Your task to perform on an android device: Add razer naga to the cart on target.com Image 0: 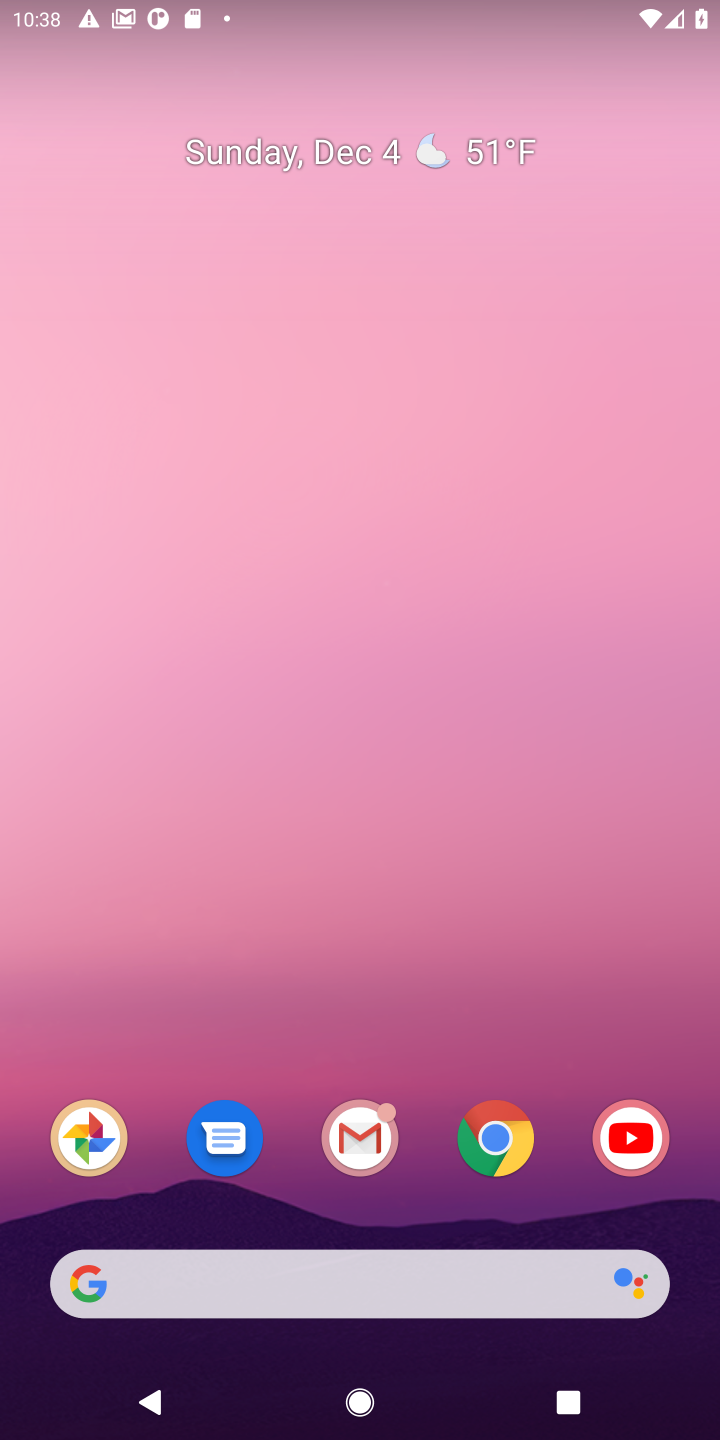
Step 0: click (514, 1122)
Your task to perform on an android device: Add razer naga to the cart on target.com Image 1: 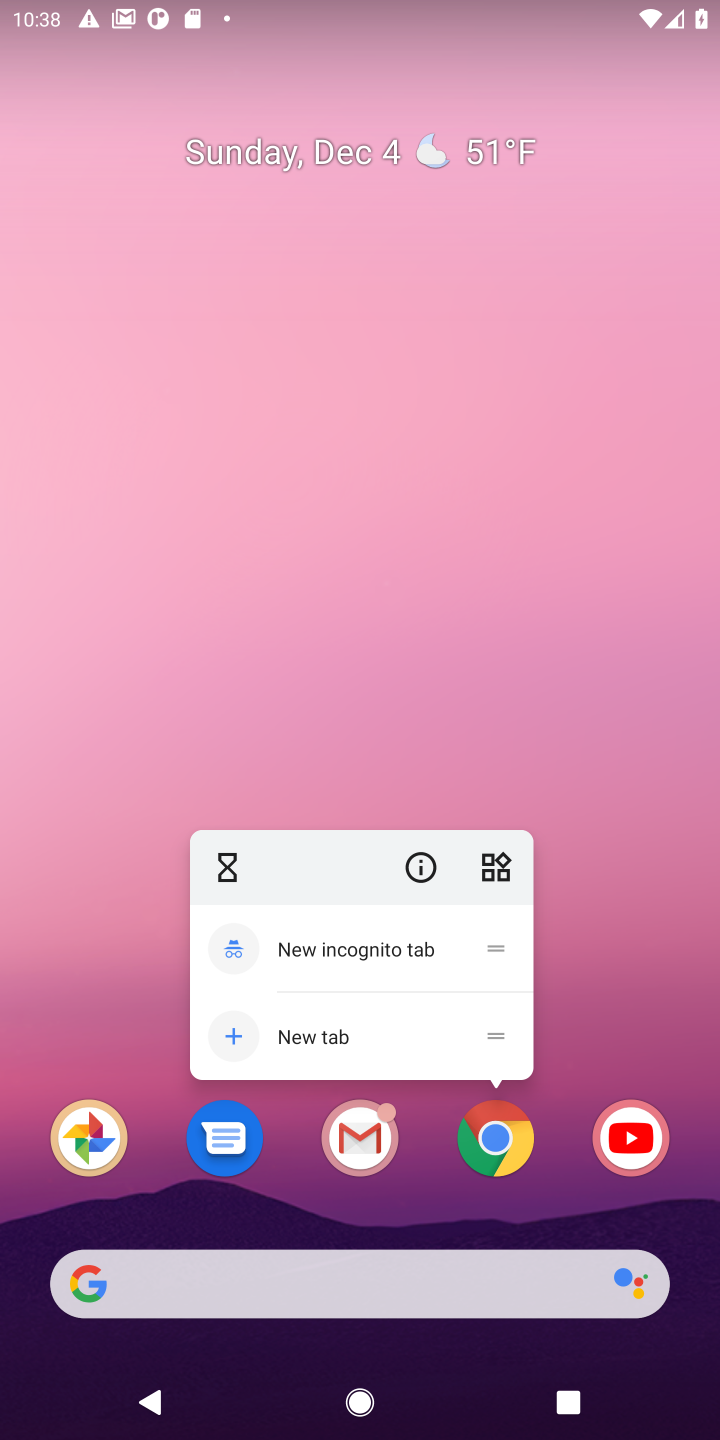
Step 1: click (514, 1122)
Your task to perform on an android device: Add razer naga to the cart on target.com Image 2: 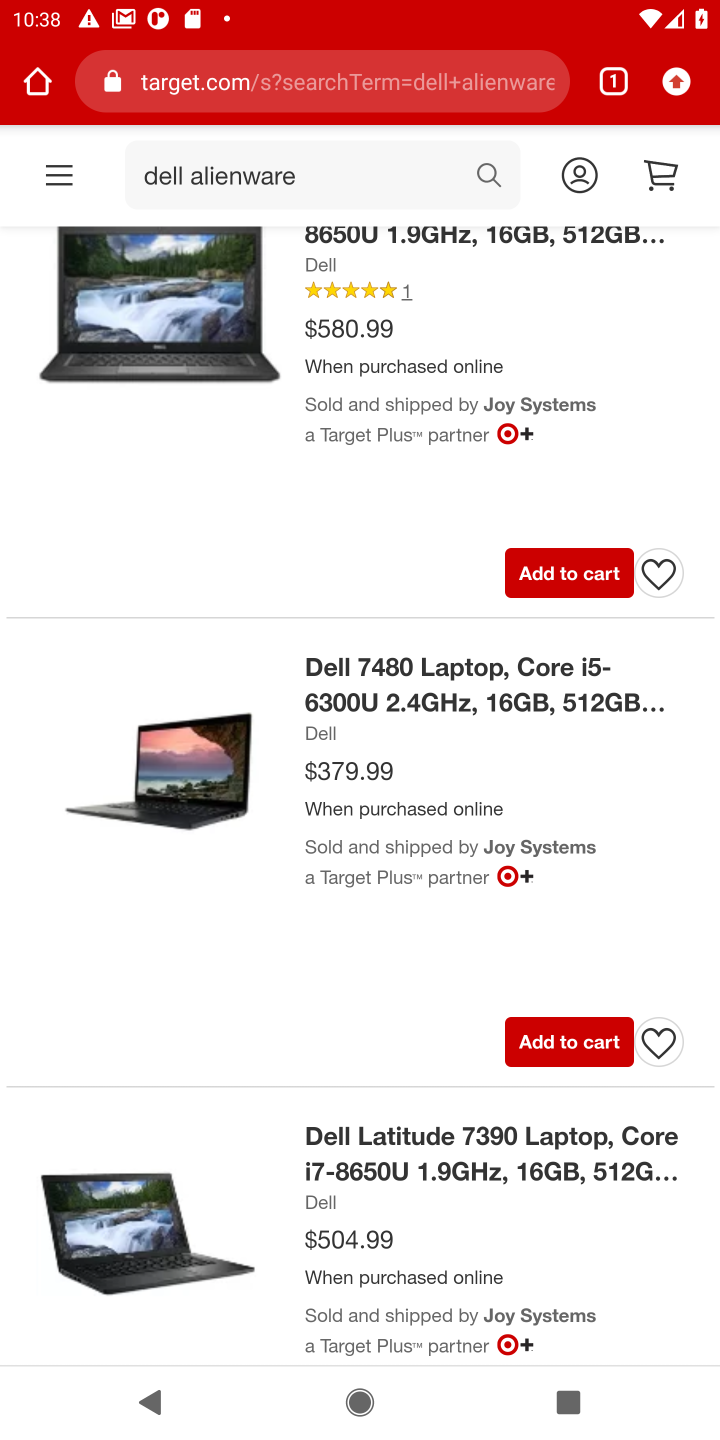
Step 2: click (486, 172)
Your task to perform on an android device: Add razer naga to the cart on target.com Image 3: 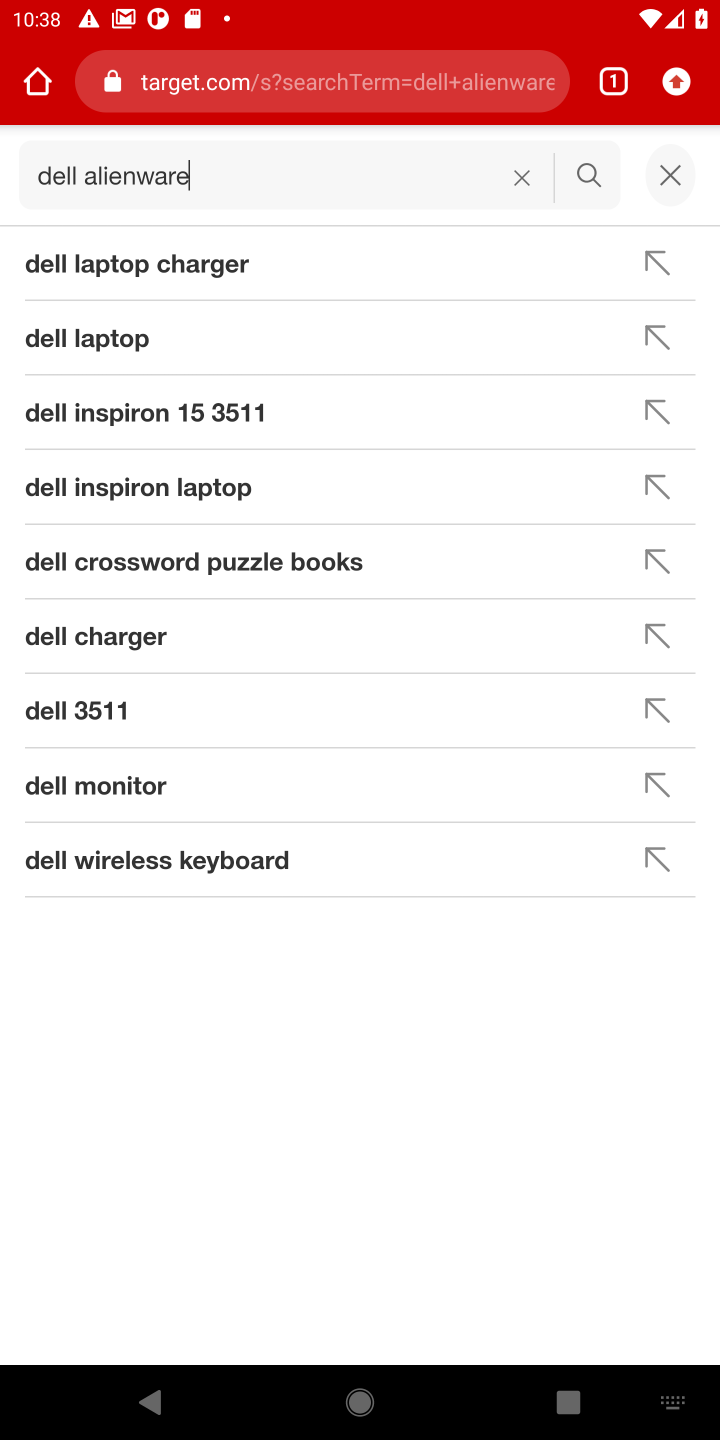
Step 3: click (513, 177)
Your task to perform on an android device: Add razer naga to the cart on target.com Image 4: 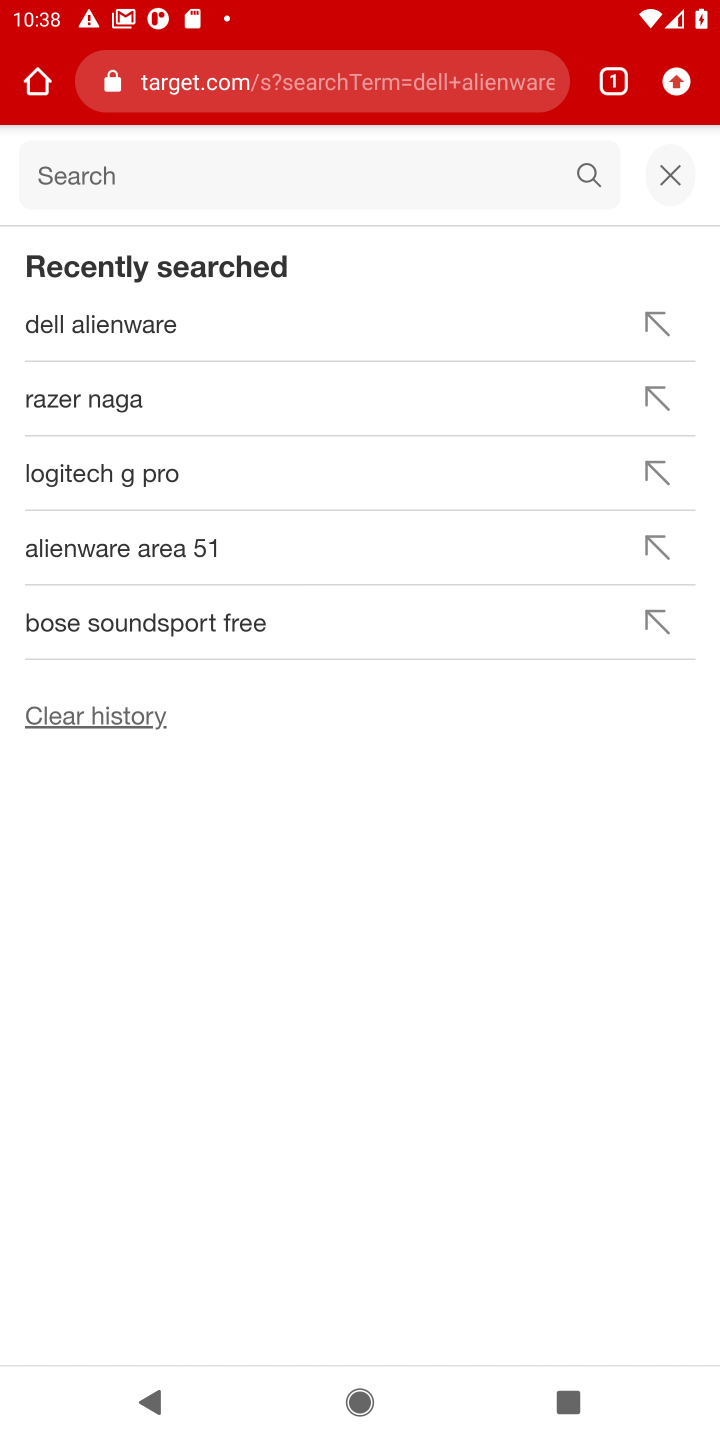
Step 4: type "razer naga"
Your task to perform on an android device: Add razer naga to the cart on target.com Image 5: 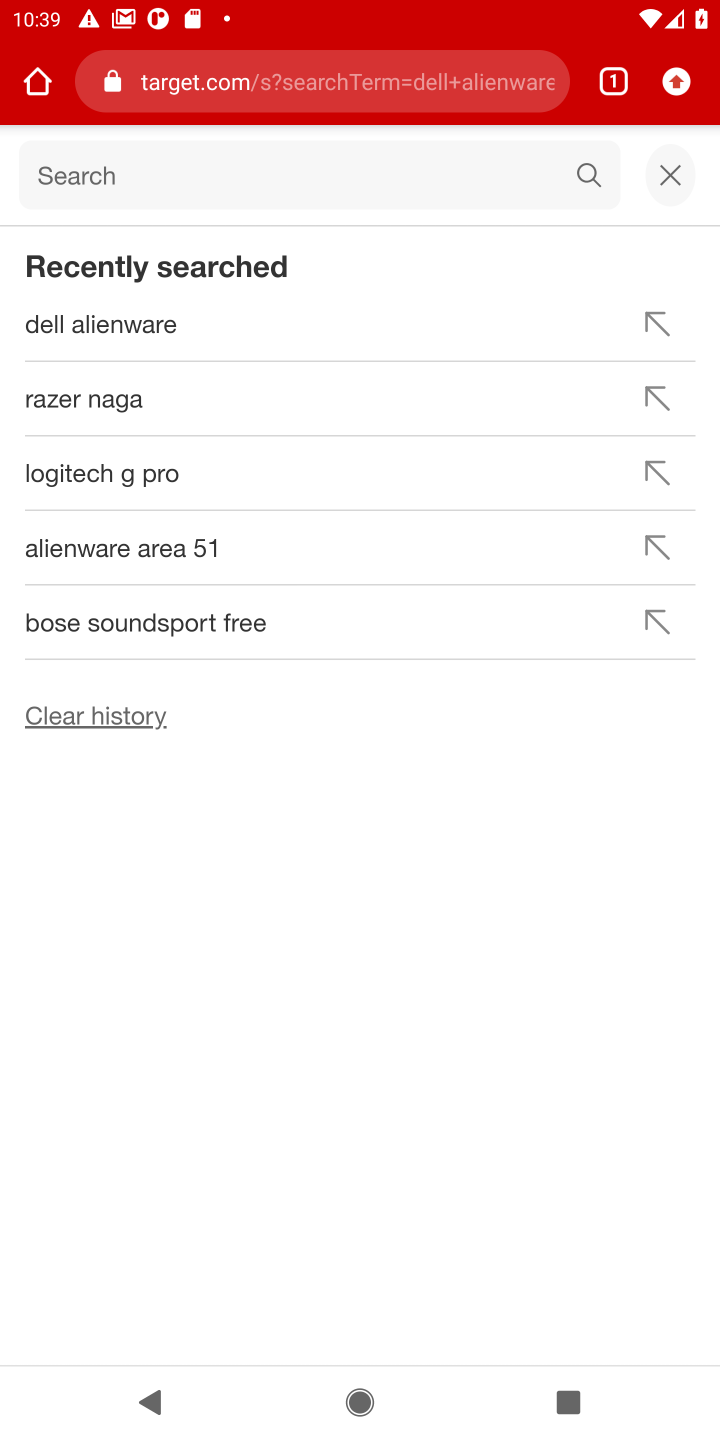
Step 5: click (332, 150)
Your task to perform on an android device: Add razer naga to the cart on target.com Image 6: 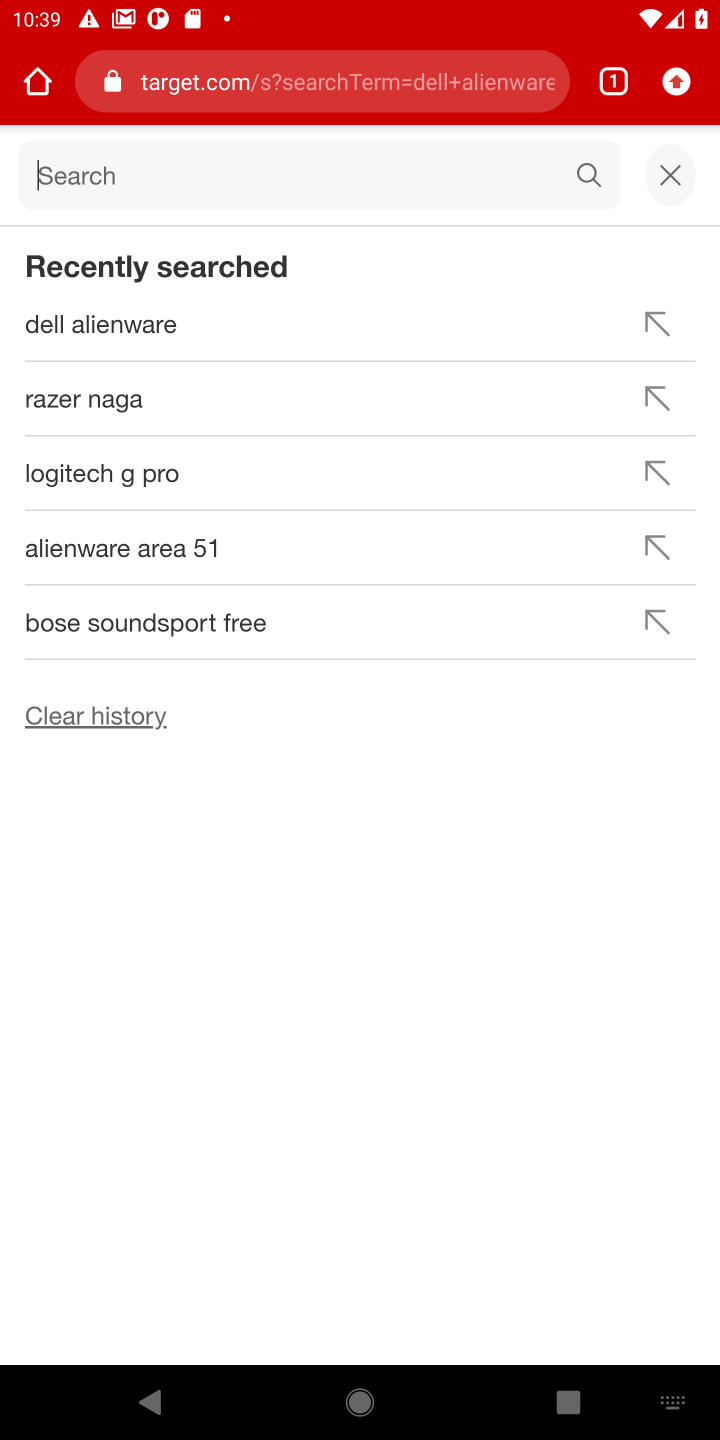
Step 6: click (103, 387)
Your task to perform on an android device: Add razer naga to the cart on target.com Image 7: 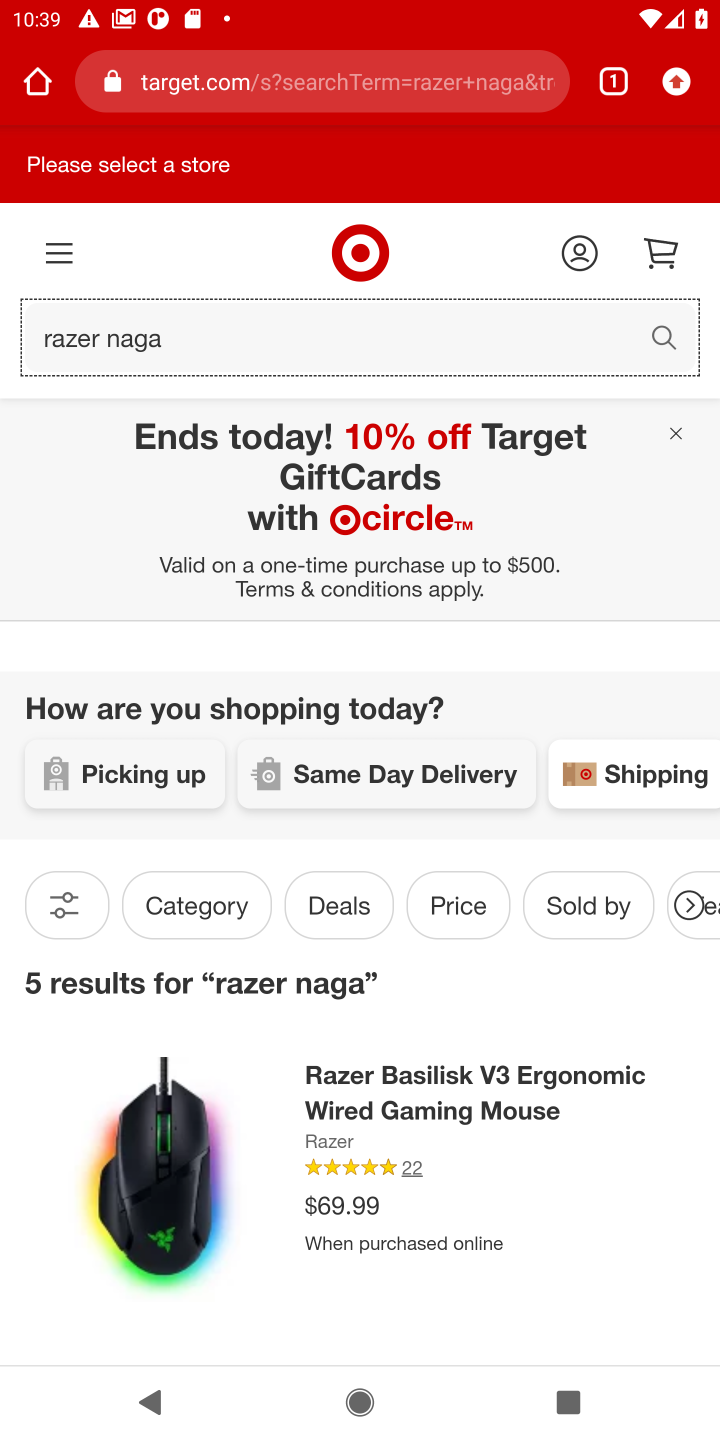
Step 7: task complete